Your task to perform on an android device: Search for vegetarian restaurants on Maps Image 0: 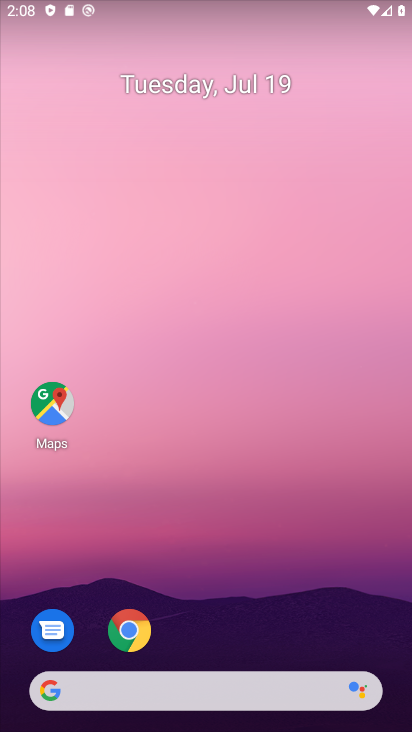
Step 0: click (54, 401)
Your task to perform on an android device: Search for vegetarian restaurants on Maps Image 1: 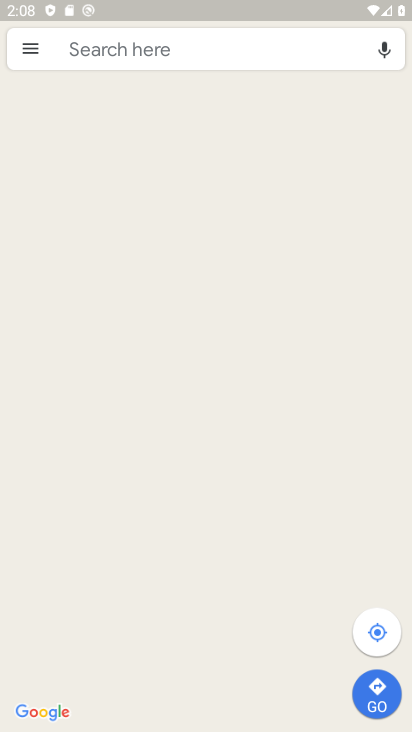
Step 1: click (129, 51)
Your task to perform on an android device: Search for vegetarian restaurants on Maps Image 2: 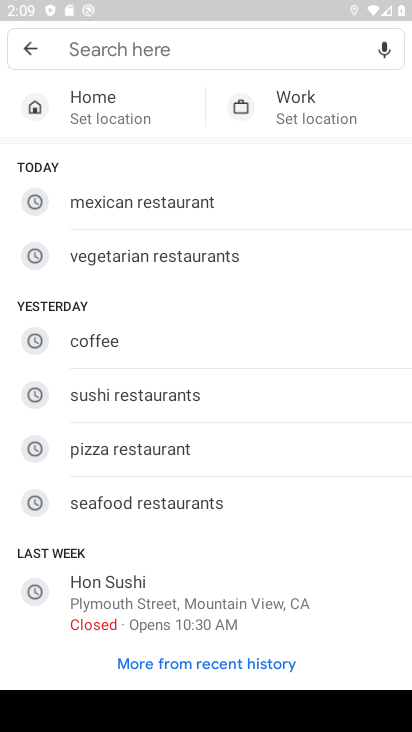
Step 2: type "vegetarian restaurants"
Your task to perform on an android device: Search for vegetarian restaurants on Maps Image 3: 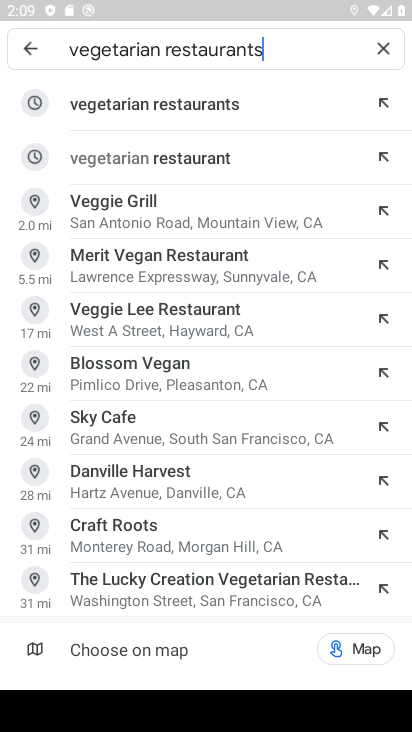
Step 3: click (149, 104)
Your task to perform on an android device: Search for vegetarian restaurants on Maps Image 4: 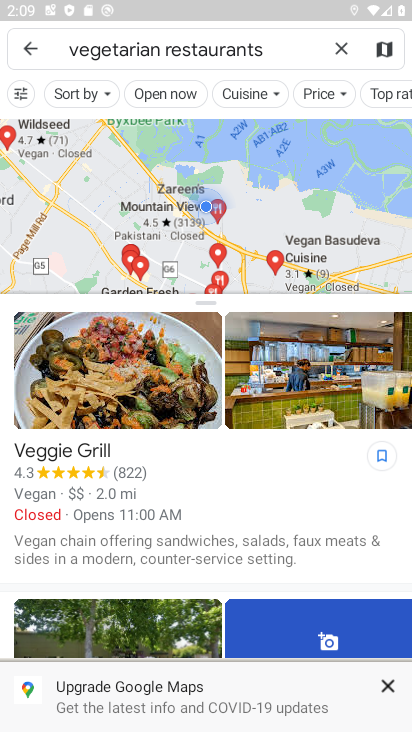
Step 4: task complete